Your task to perform on an android device: What's the weather? Image 0: 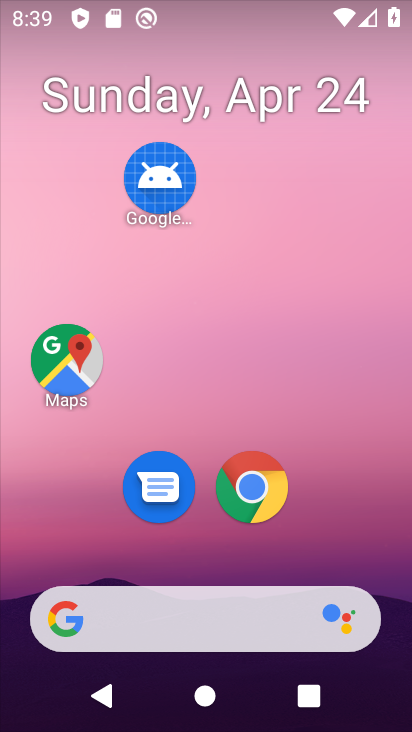
Step 0: click (268, 496)
Your task to perform on an android device: What's the weather? Image 1: 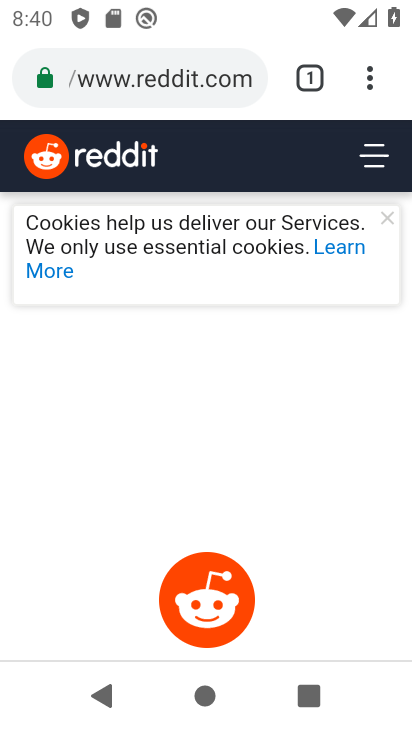
Step 1: click (313, 77)
Your task to perform on an android device: What's the weather? Image 2: 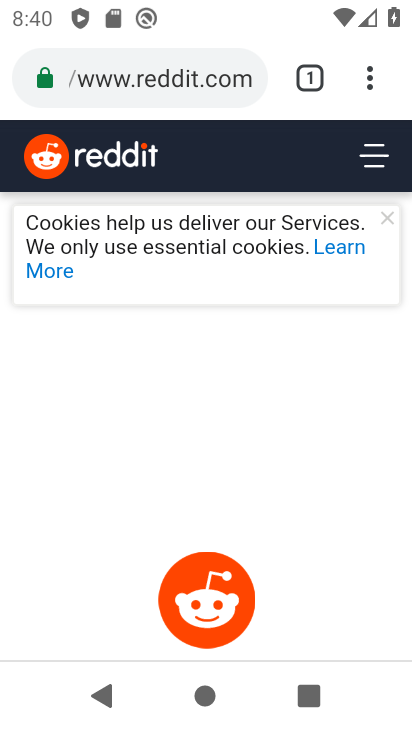
Step 2: click (313, 77)
Your task to perform on an android device: What's the weather? Image 3: 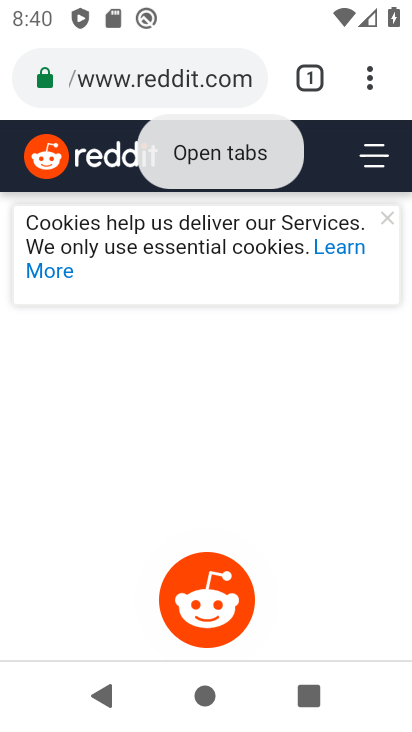
Step 3: click (215, 86)
Your task to perform on an android device: What's the weather? Image 4: 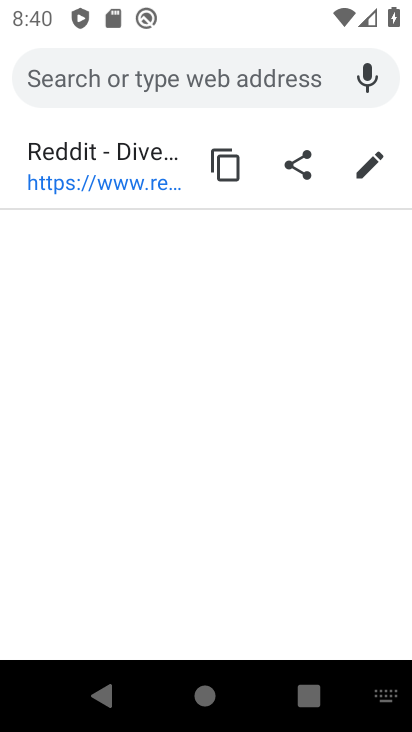
Step 4: type "whats the weather"
Your task to perform on an android device: What's the weather? Image 5: 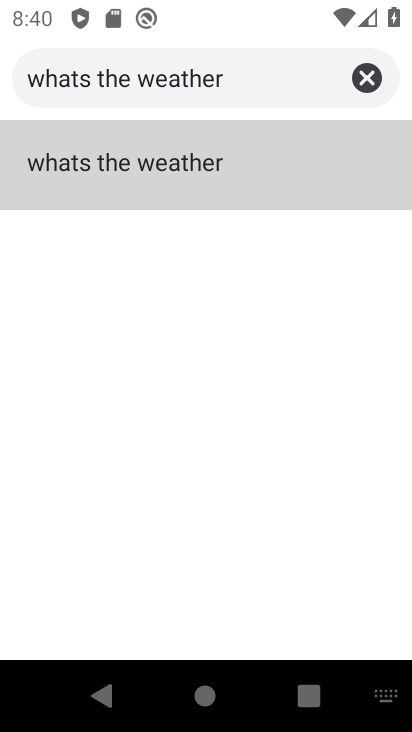
Step 5: click (97, 157)
Your task to perform on an android device: What's the weather? Image 6: 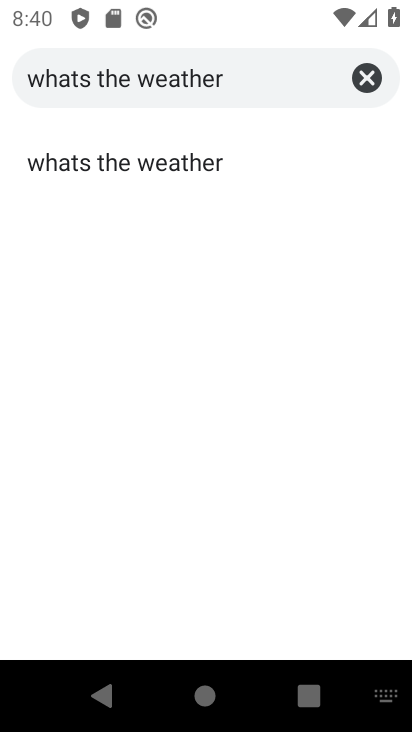
Step 6: click (111, 168)
Your task to perform on an android device: What's the weather? Image 7: 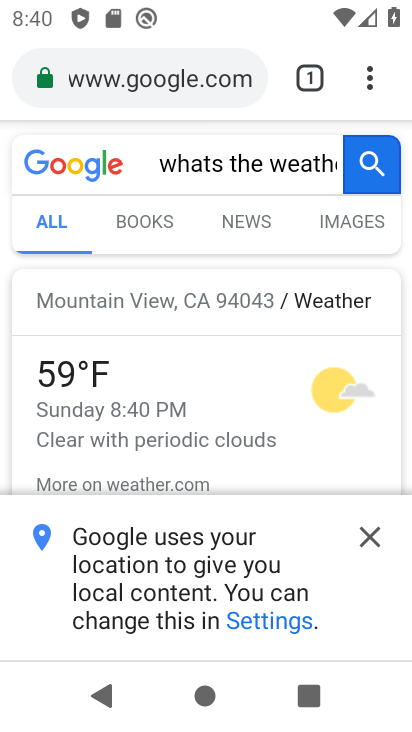
Step 7: task complete